Your task to perform on an android device: open a bookmark in the chrome app Image 0: 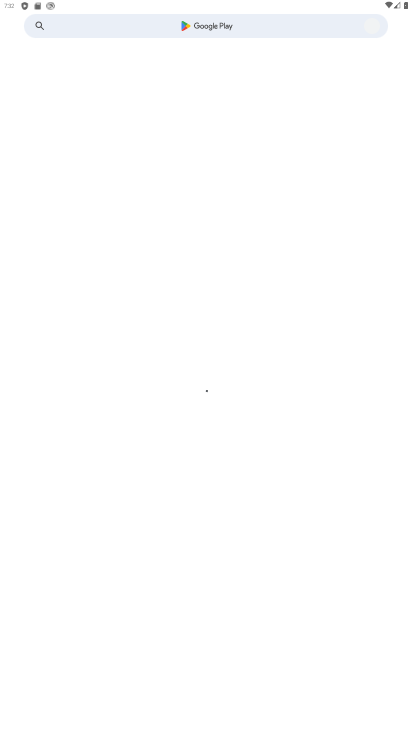
Step 0: drag from (163, 496) to (258, 121)
Your task to perform on an android device: open a bookmark in the chrome app Image 1: 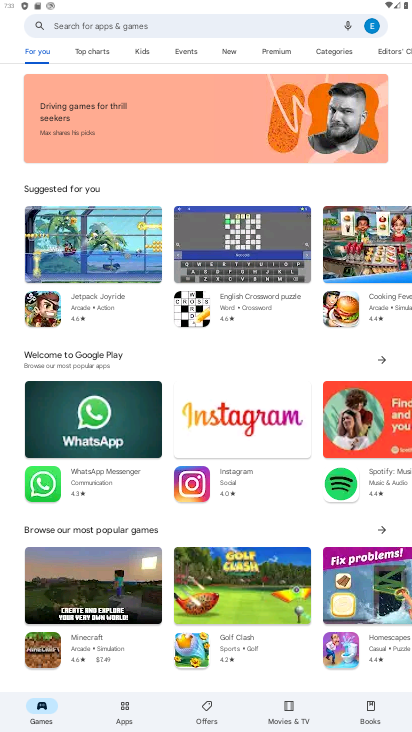
Step 1: press home button
Your task to perform on an android device: open a bookmark in the chrome app Image 2: 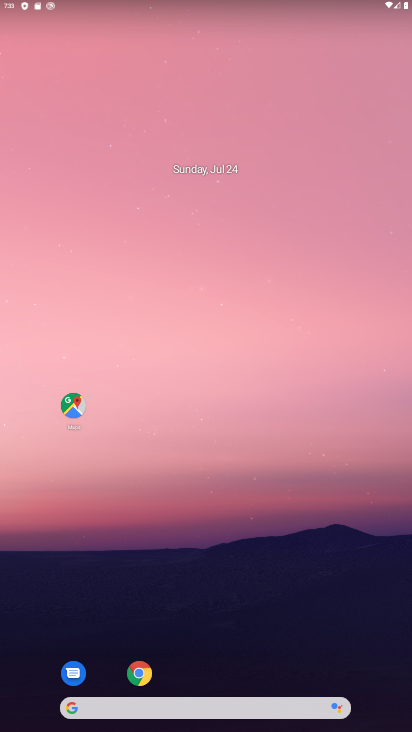
Step 2: drag from (195, 591) to (17, 171)
Your task to perform on an android device: open a bookmark in the chrome app Image 3: 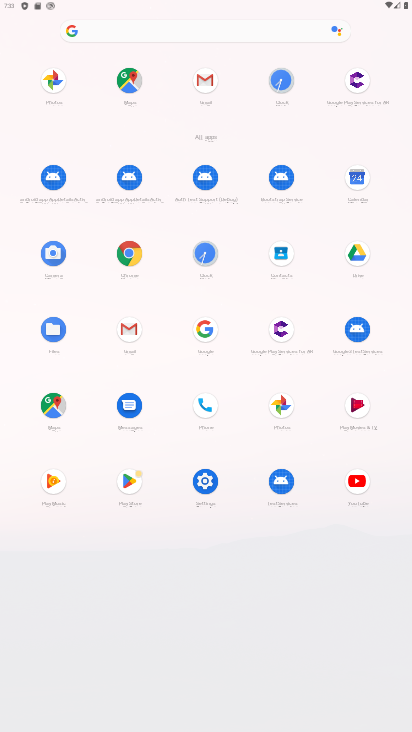
Step 3: click (122, 247)
Your task to perform on an android device: open a bookmark in the chrome app Image 4: 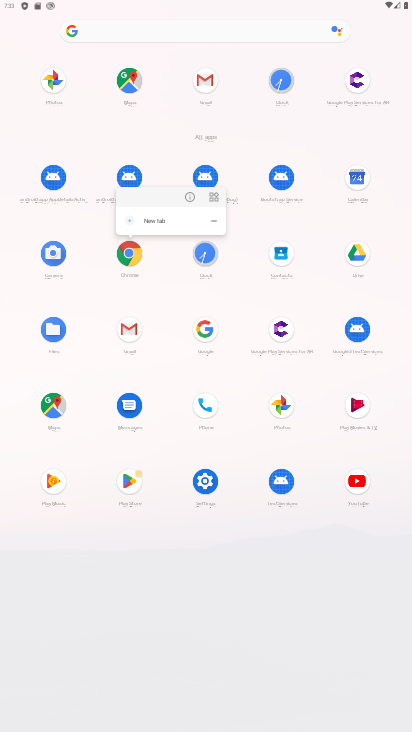
Step 4: click (185, 198)
Your task to perform on an android device: open a bookmark in the chrome app Image 5: 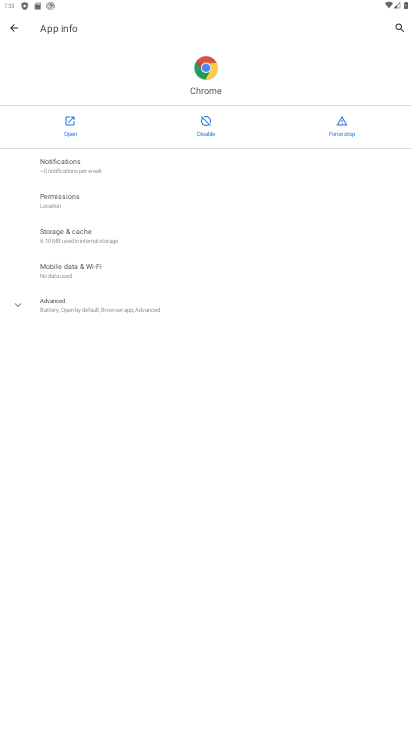
Step 5: click (59, 124)
Your task to perform on an android device: open a bookmark in the chrome app Image 6: 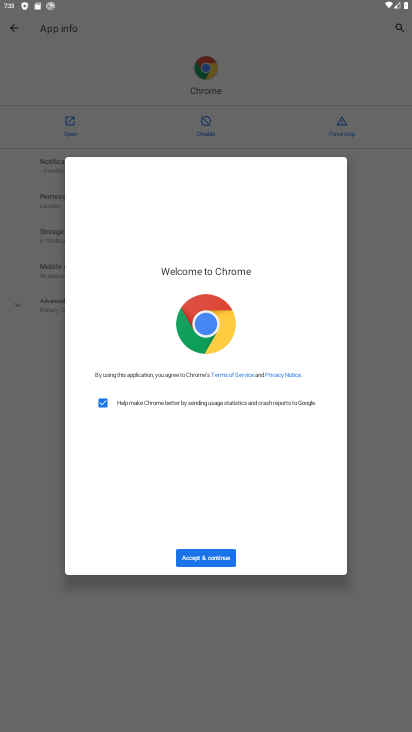
Step 6: click (205, 554)
Your task to perform on an android device: open a bookmark in the chrome app Image 7: 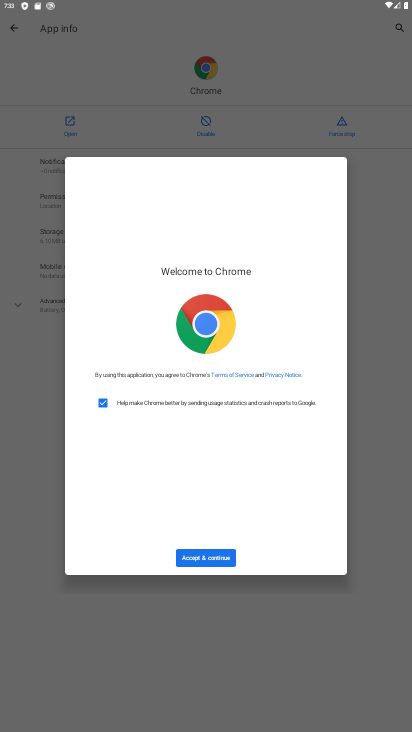
Step 7: click (206, 553)
Your task to perform on an android device: open a bookmark in the chrome app Image 8: 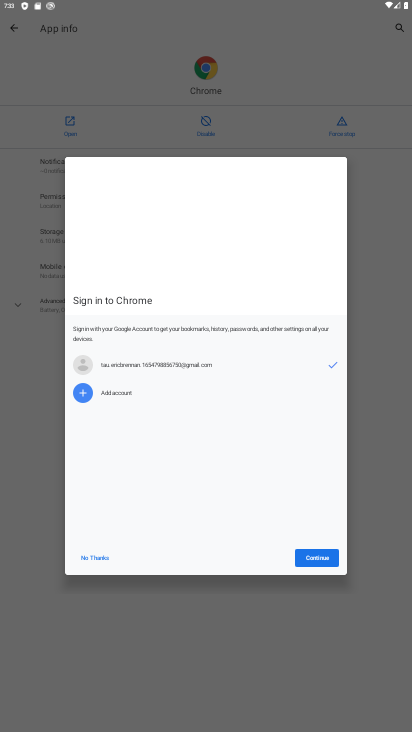
Step 8: click (312, 549)
Your task to perform on an android device: open a bookmark in the chrome app Image 9: 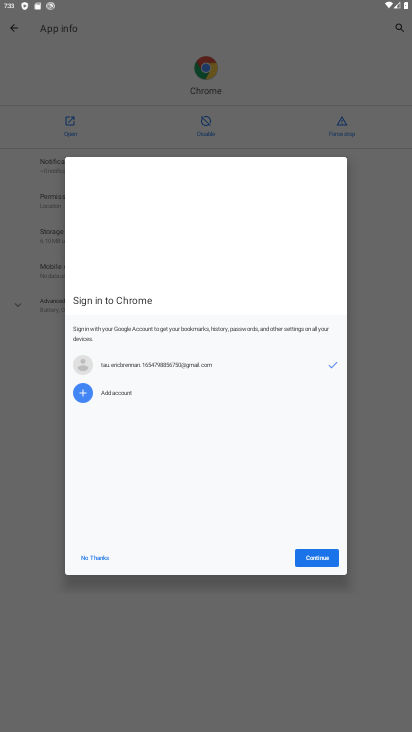
Step 9: click (315, 567)
Your task to perform on an android device: open a bookmark in the chrome app Image 10: 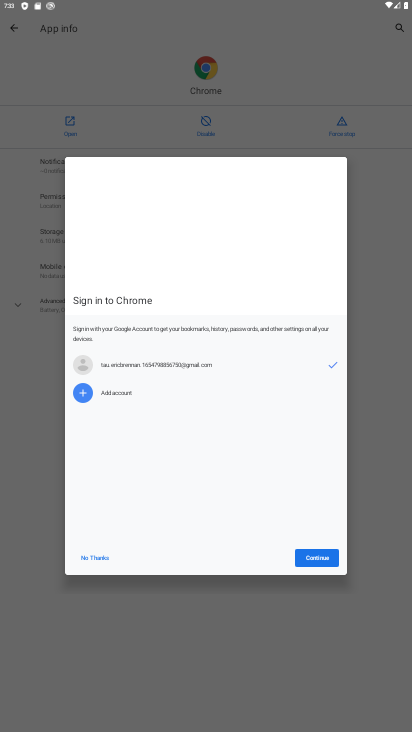
Step 10: click (315, 567)
Your task to perform on an android device: open a bookmark in the chrome app Image 11: 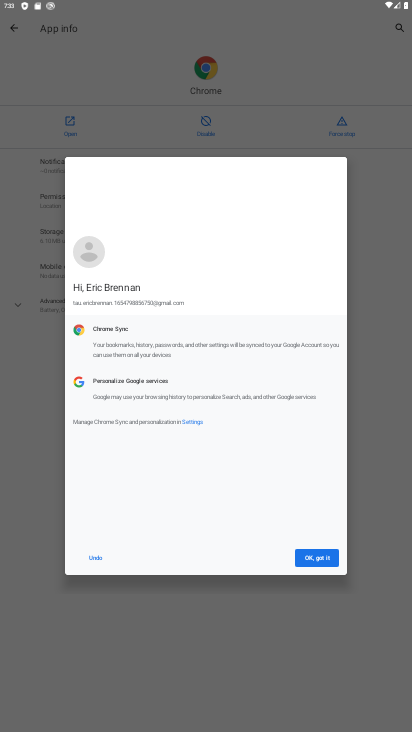
Step 11: click (314, 566)
Your task to perform on an android device: open a bookmark in the chrome app Image 12: 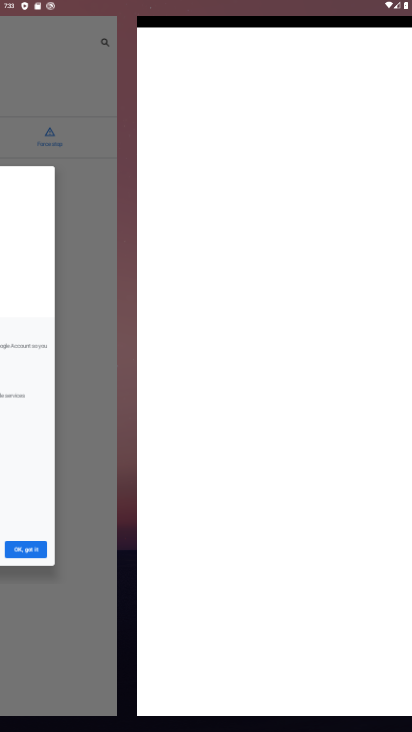
Step 12: click (314, 565)
Your task to perform on an android device: open a bookmark in the chrome app Image 13: 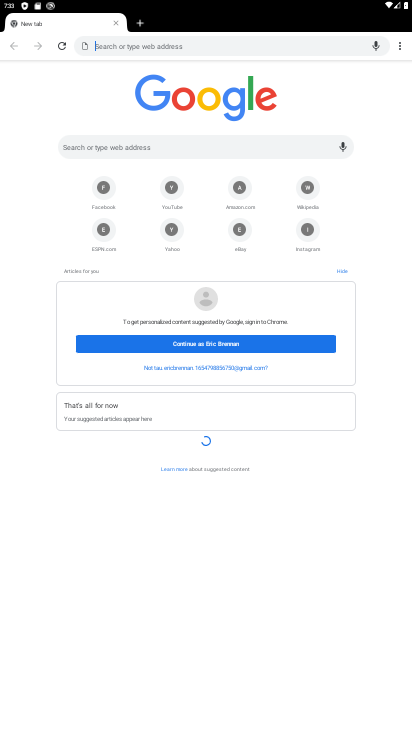
Step 13: task complete